Your task to perform on an android device: turn off notifications in google photos Image 0: 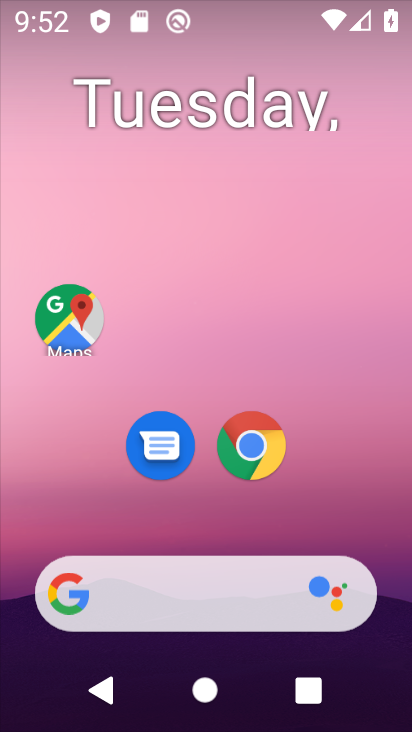
Step 0: drag from (95, 522) to (197, 106)
Your task to perform on an android device: turn off notifications in google photos Image 1: 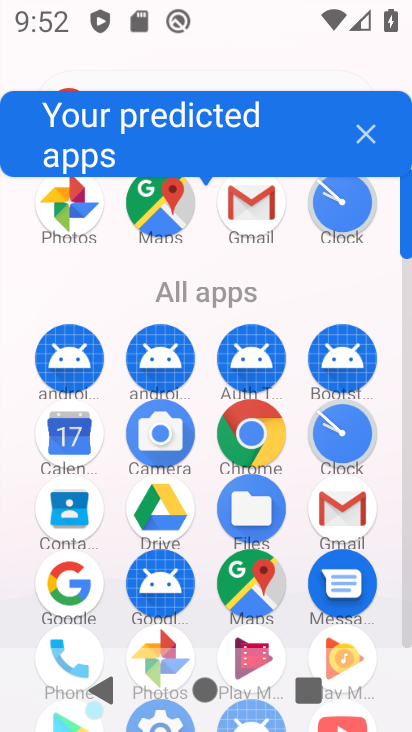
Step 1: drag from (119, 665) to (202, 437)
Your task to perform on an android device: turn off notifications in google photos Image 2: 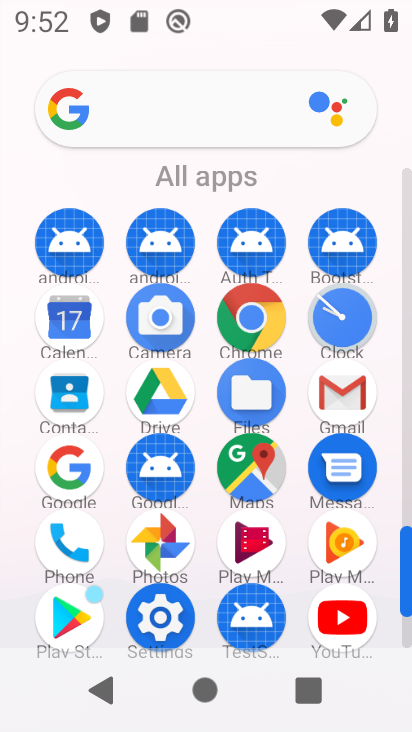
Step 2: click (176, 565)
Your task to perform on an android device: turn off notifications in google photos Image 3: 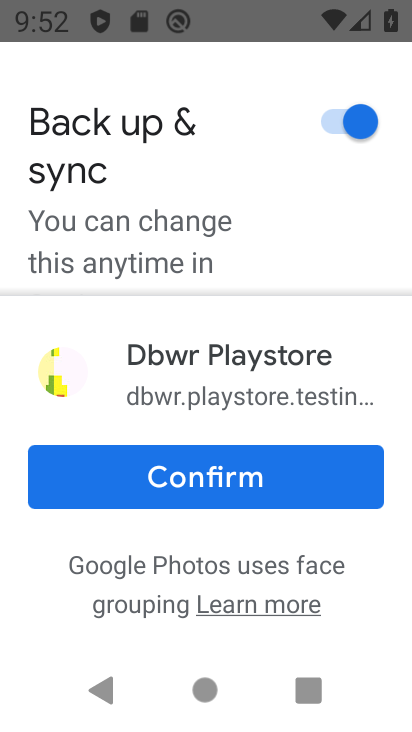
Step 3: click (220, 503)
Your task to perform on an android device: turn off notifications in google photos Image 4: 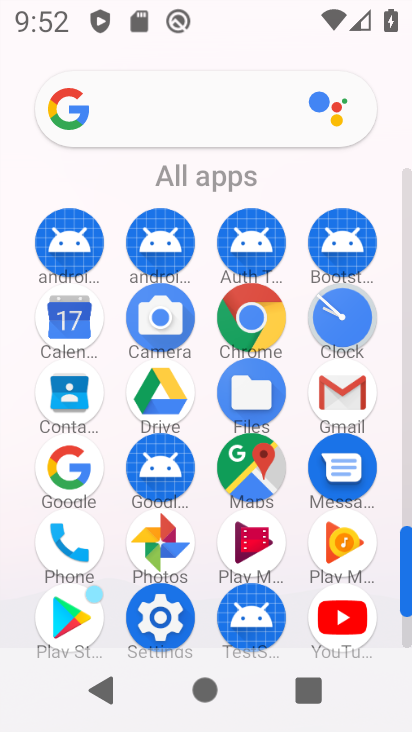
Step 4: click (167, 542)
Your task to perform on an android device: turn off notifications in google photos Image 5: 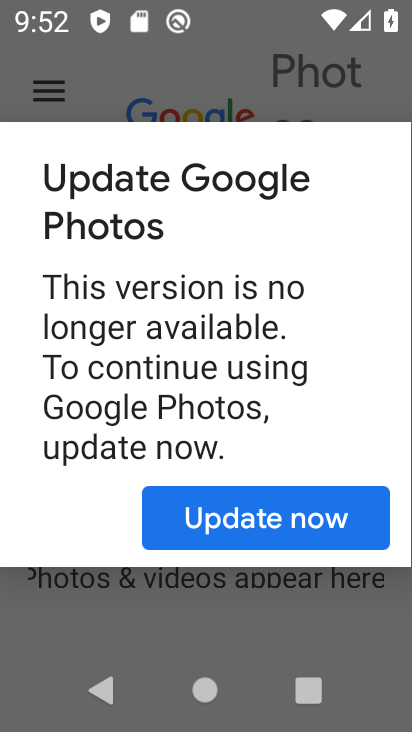
Step 5: click (300, 529)
Your task to perform on an android device: turn off notifications in google photos Image 6: 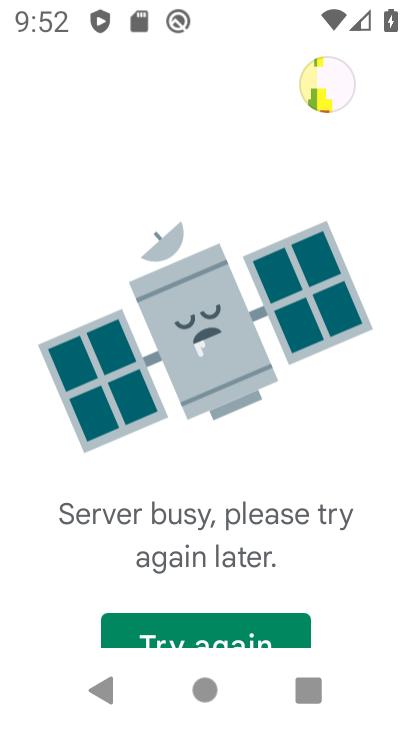
Step 6: task complete